Your task to perform on an android device: Search for pizza restaurants on Maps Image 0: 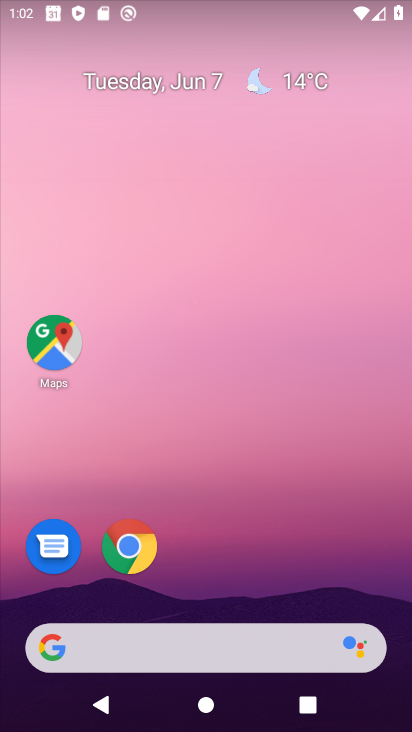
Step 0: drag from (202, 608) to (150, 136)
Your task to perform on an android device: Search for pizza restaurants on Maps Image 1: 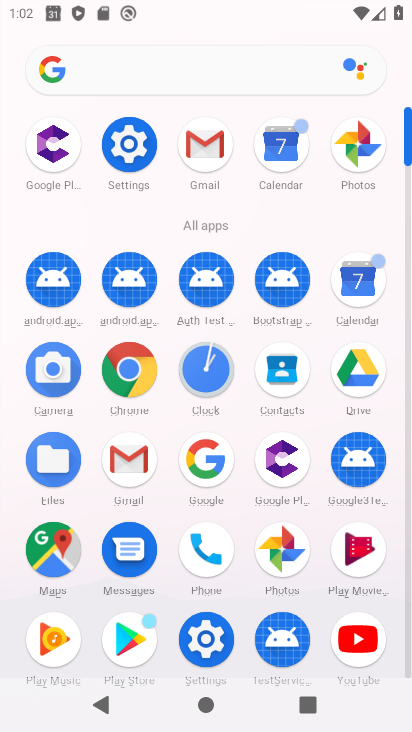
Step 1: click (65, 561)
Your task to perform on an android device: Search for pizza restaurants on Maps Image 2: 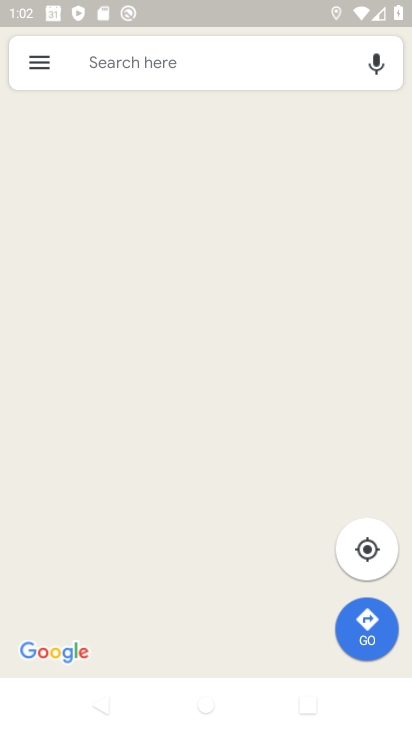
Step 2: click (273, 71)
Your task to perform on an android device: Search for pizza restaurants on Maps Image 3: 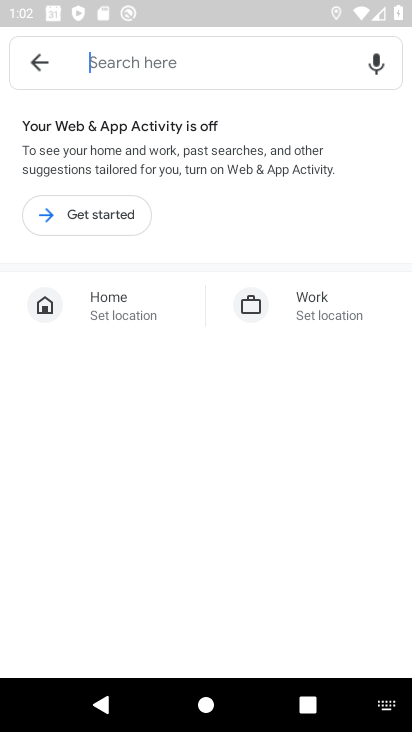
Step 3: click (103, 216)
Your task to perform on an android device: Search for pizza restaurants on Maps Image 4: 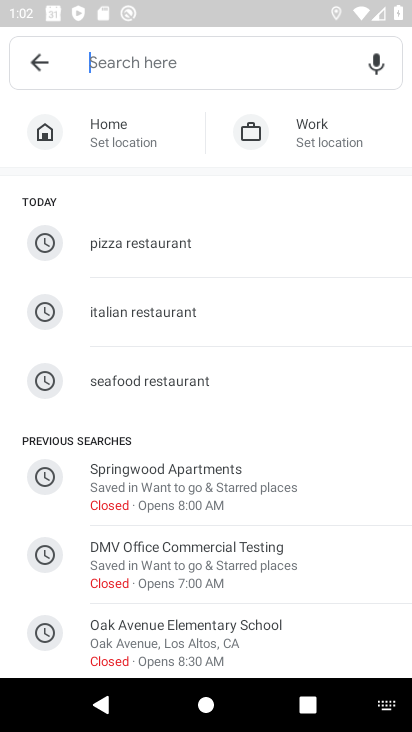
Step 4: click (149, 242)
Your task to perform on an android device: Search for pizza restaurants on Maps Image 5: 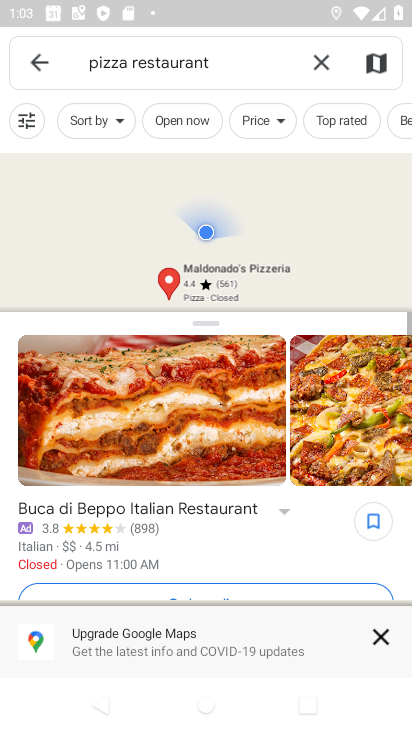
Step 5: task complete